Your task to perform on an android device: set the timer Image 0: 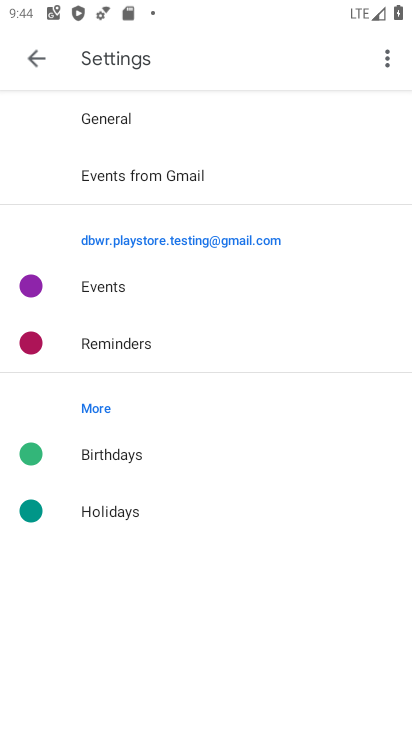
Step 0: press home button
Your task to perform on an android device: set the timer Image 1: 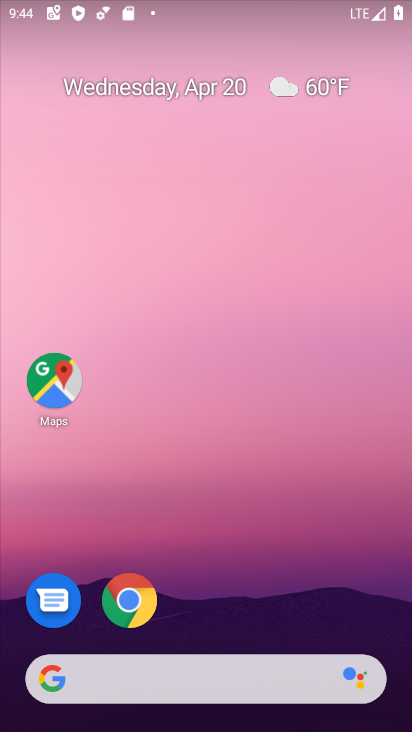
Step 1: drag from (210, 628) to (410, 210)
Your task to perform on an android device: set the timer Image 2: 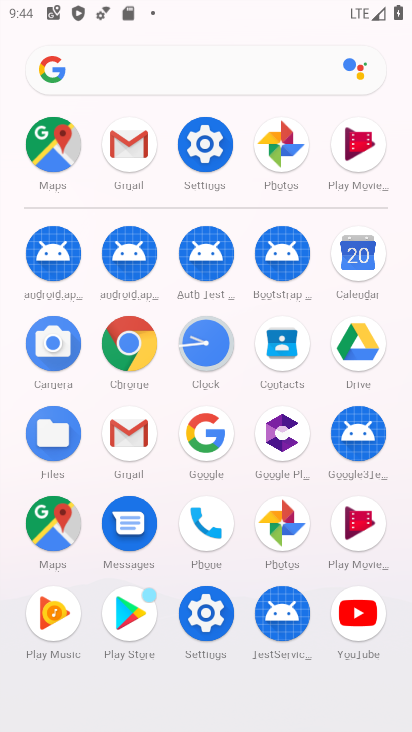
Step 2: click (213, 346)
Your task to perform on an android device: set the timer Image 3: 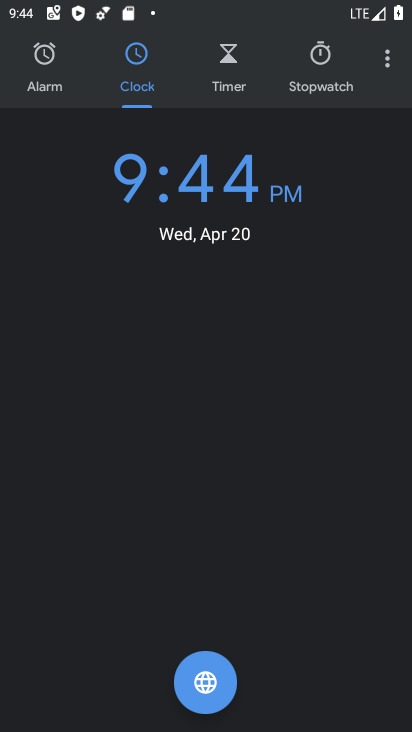
Step 3: click (239, 56)
Your task to perform on an android device: set the timer Image 4: 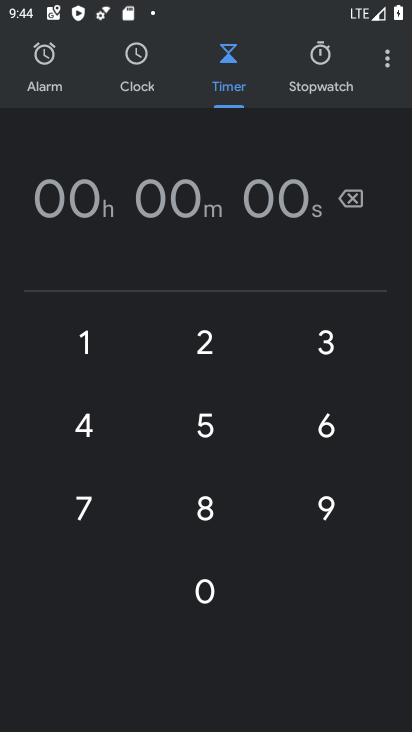
Step 4: click (216, 404)
Your task to perform on an android device: set the timer Image 5: 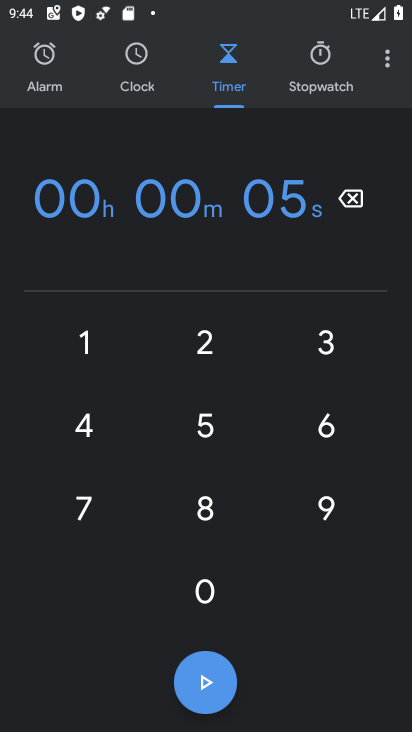
Step 5: click (199, 675)
Your task to perform on an android device: set the timer Image 6: 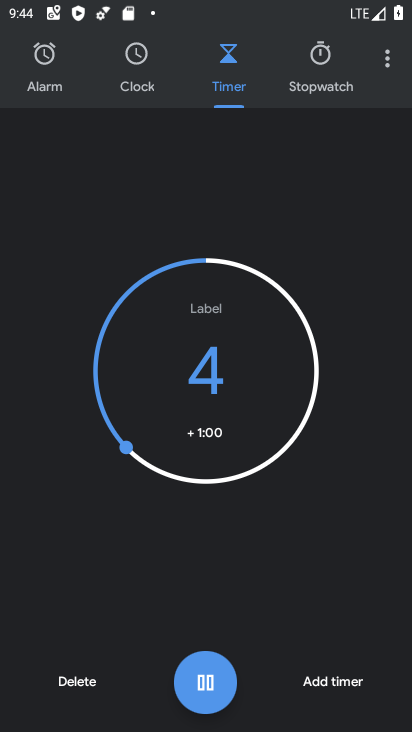
Step 6: task complete